Your task to perform on an android device: What's the weather? Image 0: 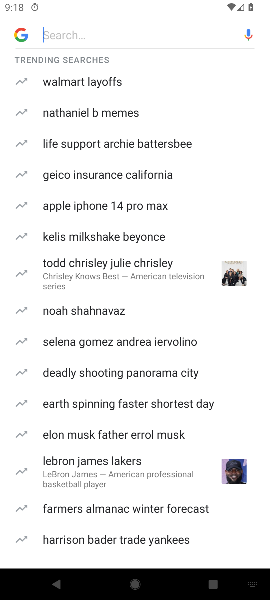
Step 0: press home button
Your task to perform on an android device: What's the weather? Image 1: 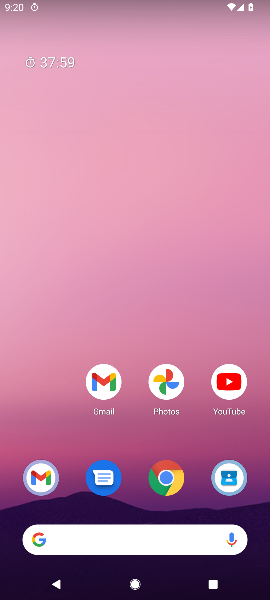
Step 1: click (171, 488)
Your task to perform on an android device: What's the weather? Image 2: 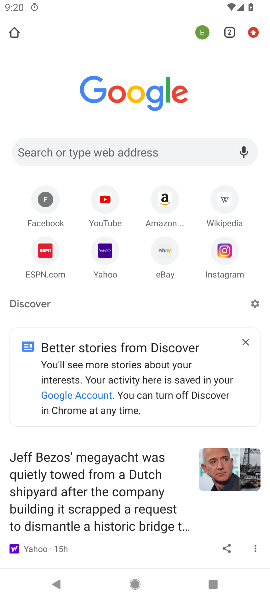
Step 2: click (194, 147)
Your task to perform on an android device: What's the weather? Image 3: 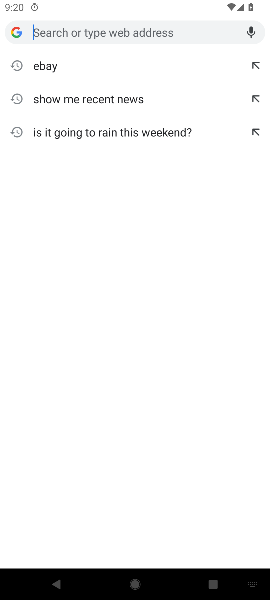
Step 3: type "What's the weather?"
Your task to perform on an android device: What's the weather? Image 4: 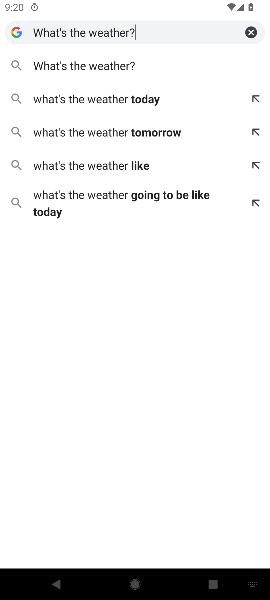
Step 4: click (49, 68)
Your task to perform on an android device: What's the weather? Image 5: 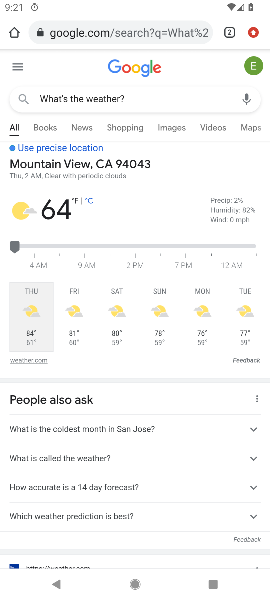
Step 5: task complete